Your task to perform on an android device: turn off notifications settings in the gmail app Image 0: 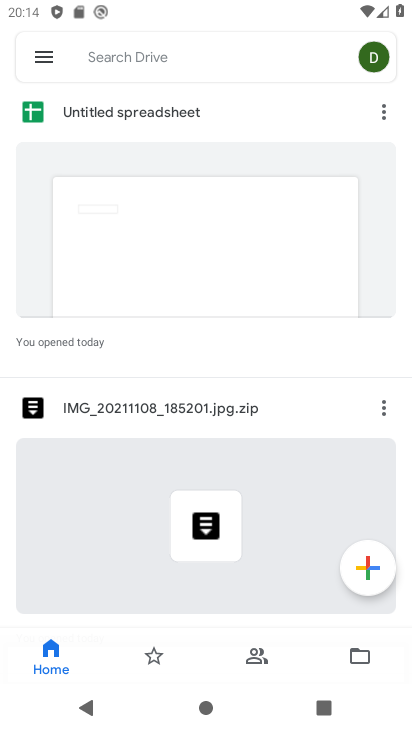
Step 0: press home button
Your task to perform on an android device: turn off notifications settings in the gmail app Image 1: 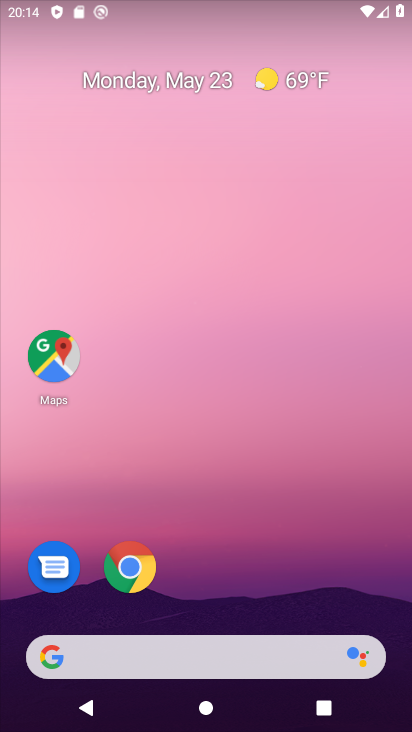
Step 1: drag from (213, 602) to (234, 0)
Your task to perform on an android device: turn off notifications settings in the gmail app Image 2: 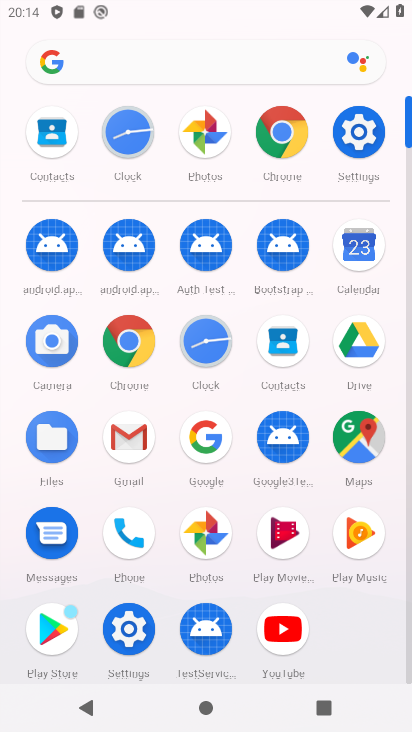
Step 2: click (112, 432)
Your task to perform on an android device: turn off notifications settings in the gmail app Image 3: 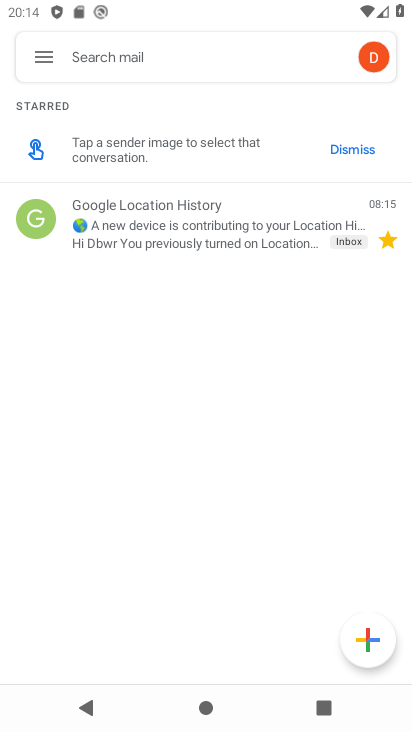
Step 3: click (41, 50)
Your task to perform on an android device: turn off notifications settings in the gmail app Image 4: 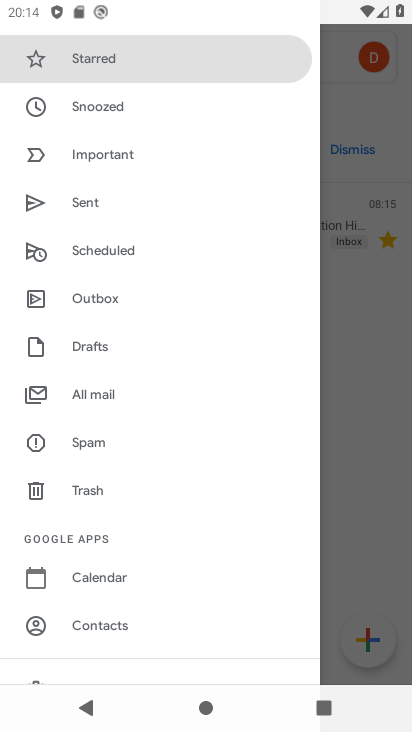
Step 4: drag from (105, 594) to (149, 165)
Your task to perform on an android device: turn off notifications settings in the gmail app Image 5: 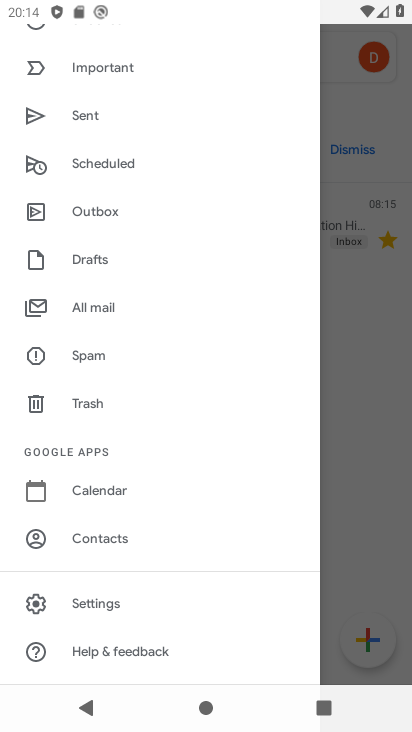
Step 5: click (109, 606)
Your task to perform on an android device: turn off notifications settings in the gmail app Image 6: 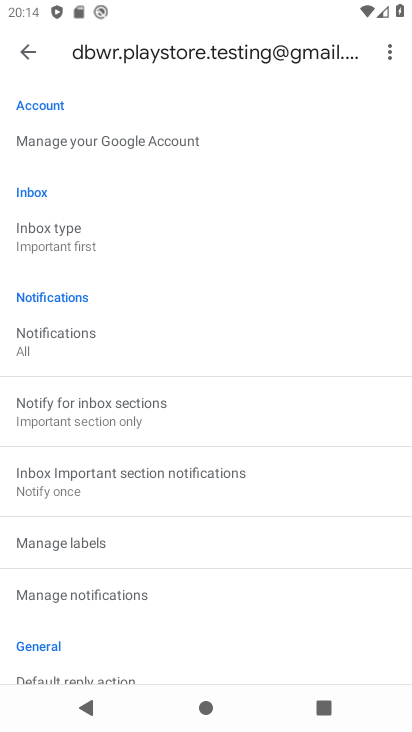
Step 6: click (31, 46)
Your task to perform on an android device: turn off notifications settings in the gmail app Image 7: 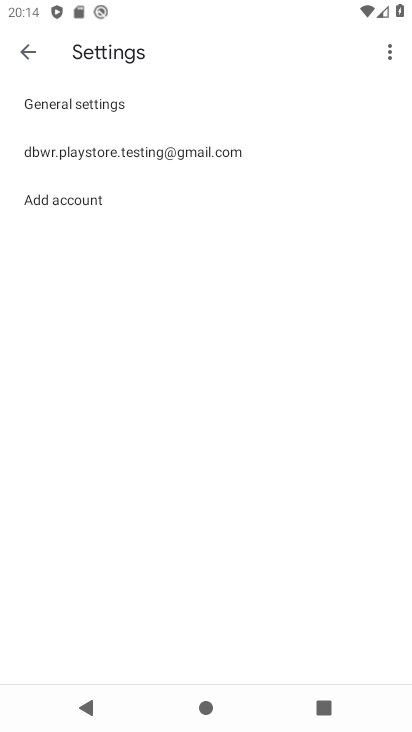
Step 7: click (126, 100)
Your task to perform on an android device: turn off notifications settings in the gmail app Image 8: 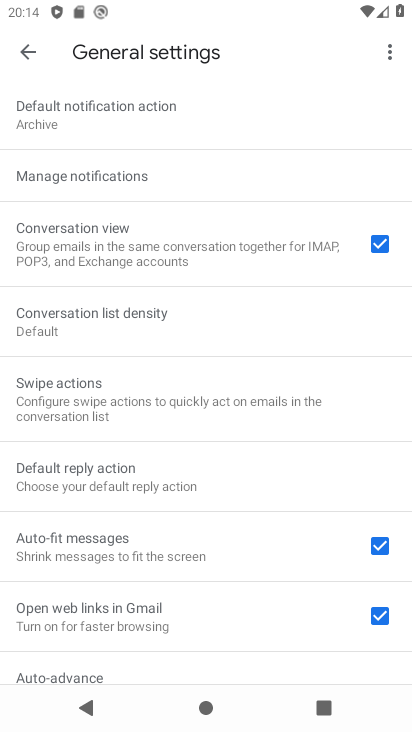
Step 8: click (109, 182)
Your task to perform on an android device: turn off notifications settings in the gmail app Image 9: 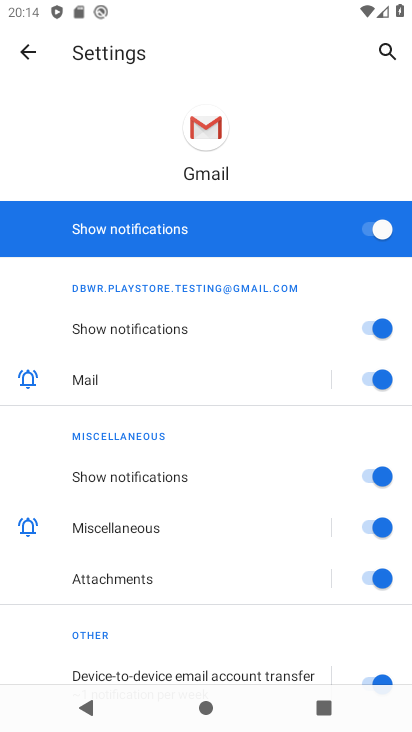
Step 9: click (364, 231)
Your task to perform on an android device: turn off notifications settings in the gmail app Image 10: 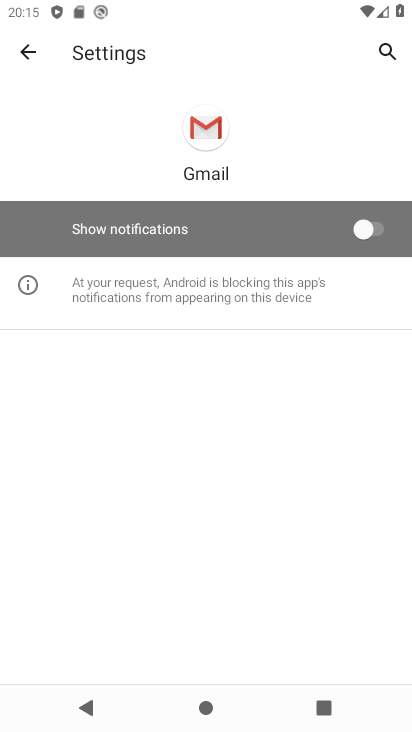
Step 10: task complete